Your task to perform on an android device: How much does a 2 bedroom apartment rent for in New York? Image 0: 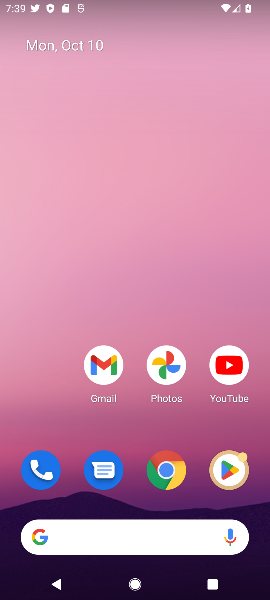
Step 0: click (161, 474)
Your task to perform on an android device: How much does a 2 bedroom apartment rent for in New York? Image 1: 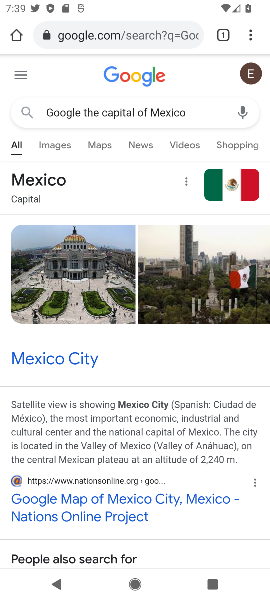
Step 1: click (96, 35)
Your task to perform on an android device: How much does a 2 bedroom apartment rent for in New York? Image 2: 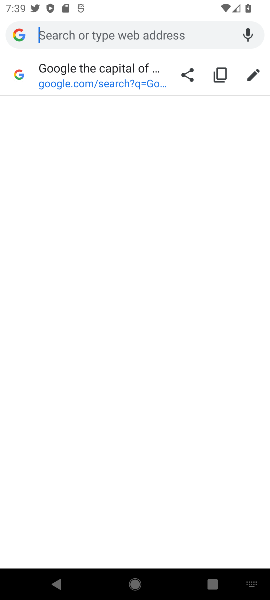
Step 2: type "How much does a 2 bedroom apartment rent for in New York?"
Your task to perform on an android device: How much does a 2 bedroom apartment rent for in New York? Image 3: 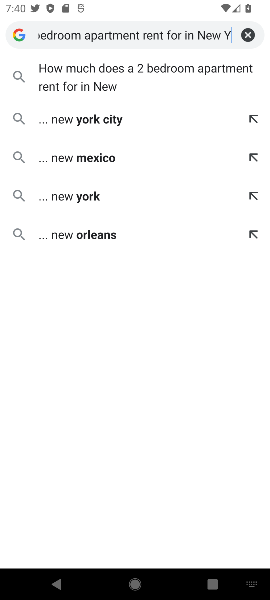
Step 3: type ""
Your task to perform on an android device: How much does a 2 bedroom apartment rent for in New York? Image 4: 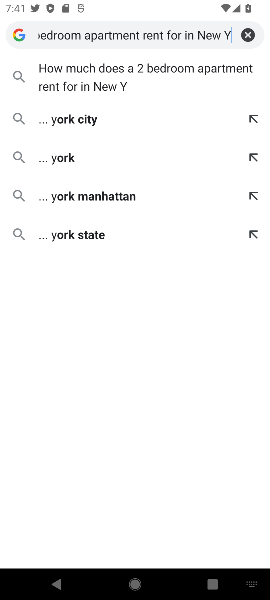
Step 4: click (150, 74)
Your task to perform on an android device: How much does a 2 bedroom apartment rent for in New York? Image 5: 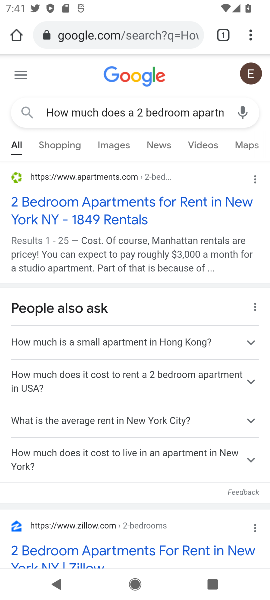
Step 5: click (29, 209)
Your task to perform on an android device: How much does a 2 bedroom apartment rent for in New York? Image 6: 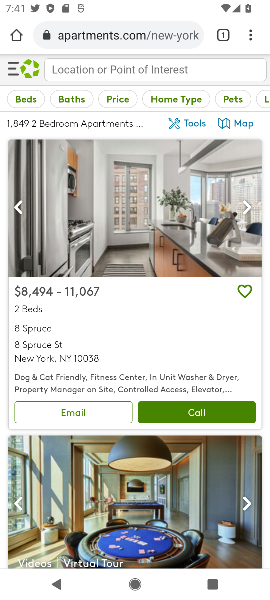
Step 6: task complete